Your task to perform on an android device: Open the web browser Image 0: 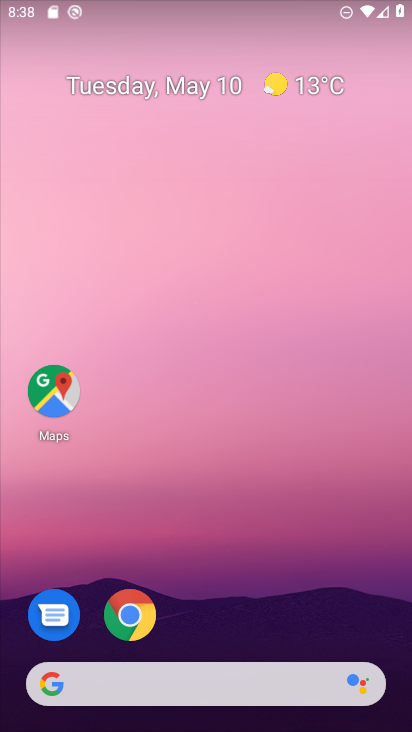
Step 0: click (136, 618)
Your task to perform on an android device: Open the web browser Image 1: 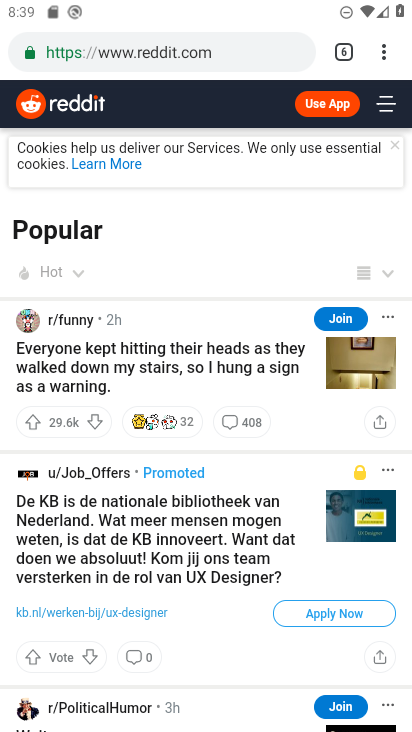
Step 1: task complete